Your task to perform on an android device: change your default location settings in chrome Image 0: 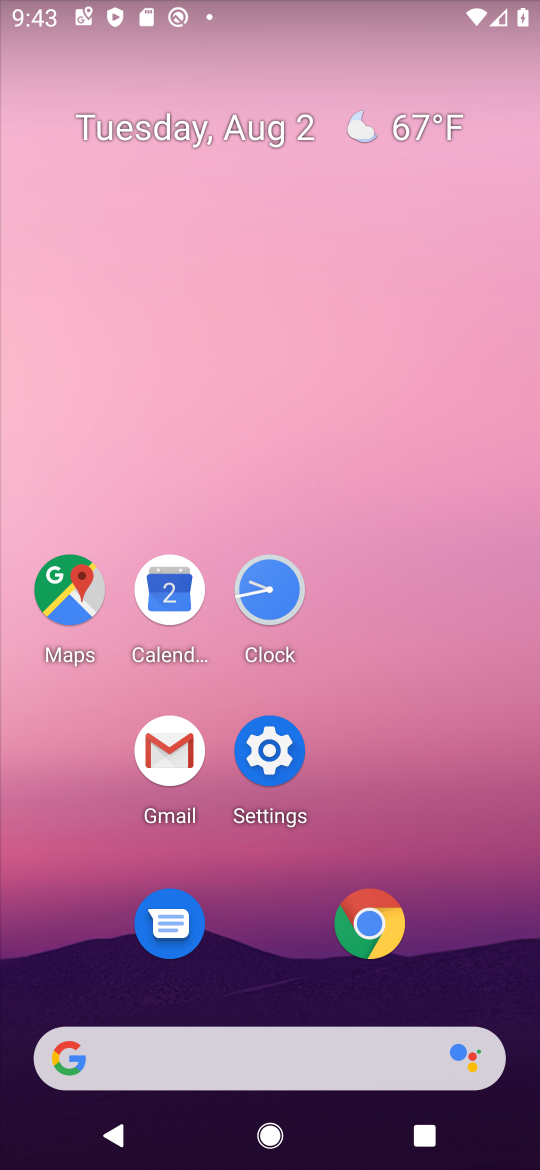
Step 0: press home button
Your task to perform on an android device: change your default location settings in chrome Image 1: 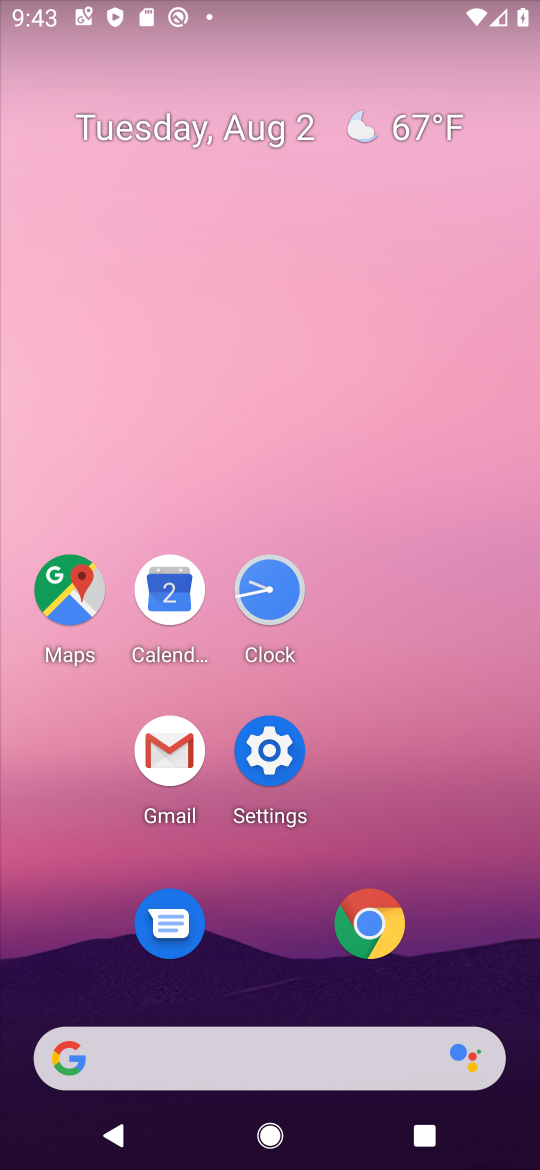
Step 1: click (359, 924)
Your task to perform on an android device: change your default location settings in chrome Image 2: 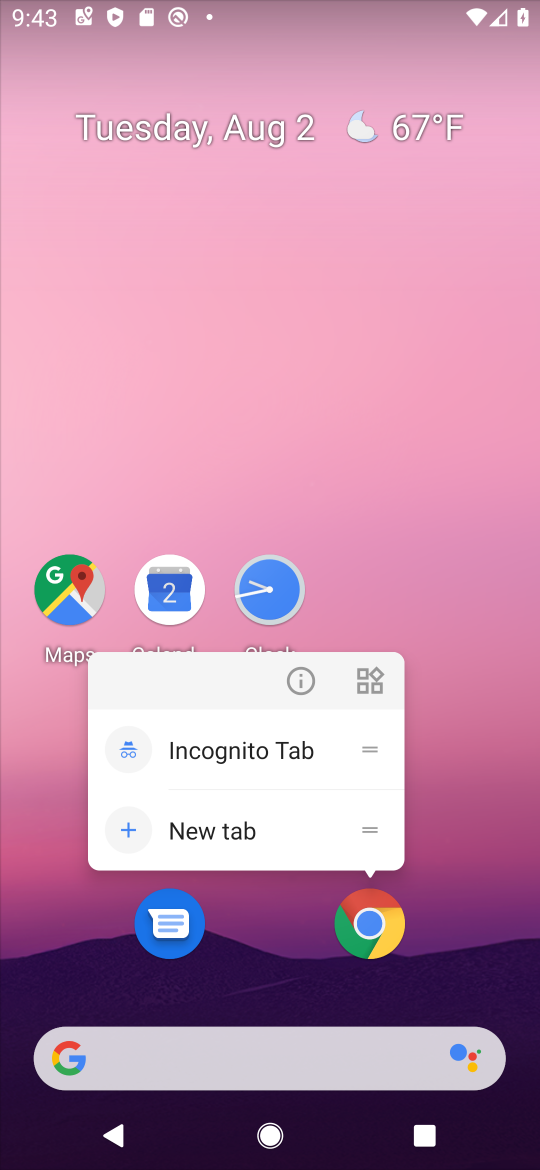
Step 2: click (378, 926)
Your task to perform on an android device: change your default location settings in chrome Image 3: 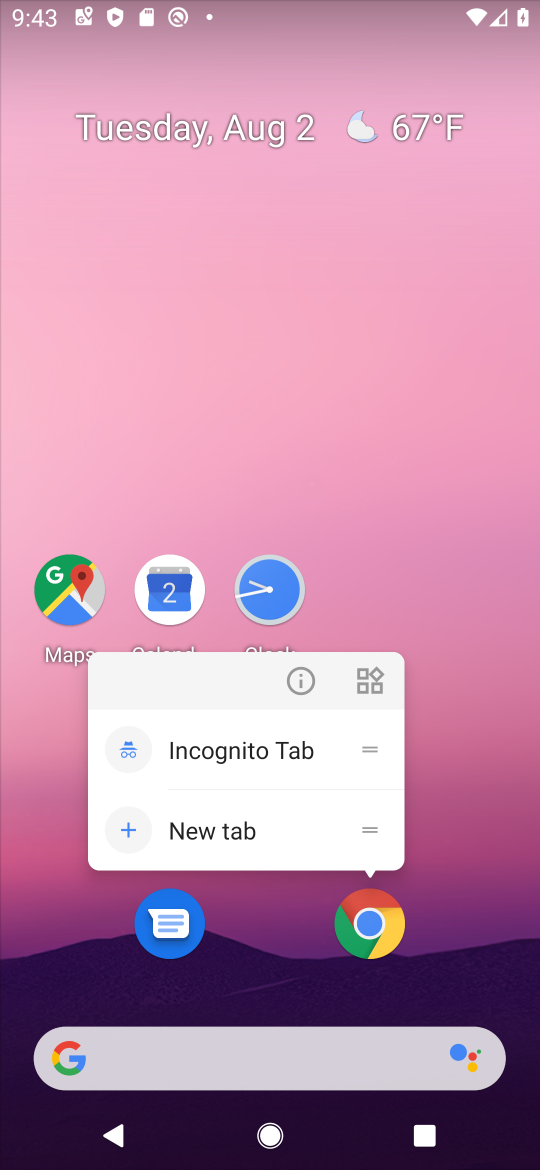
Step 3: click (378, 925)
Your task to perform on an android device: change your default location settings in chrome Image 4: 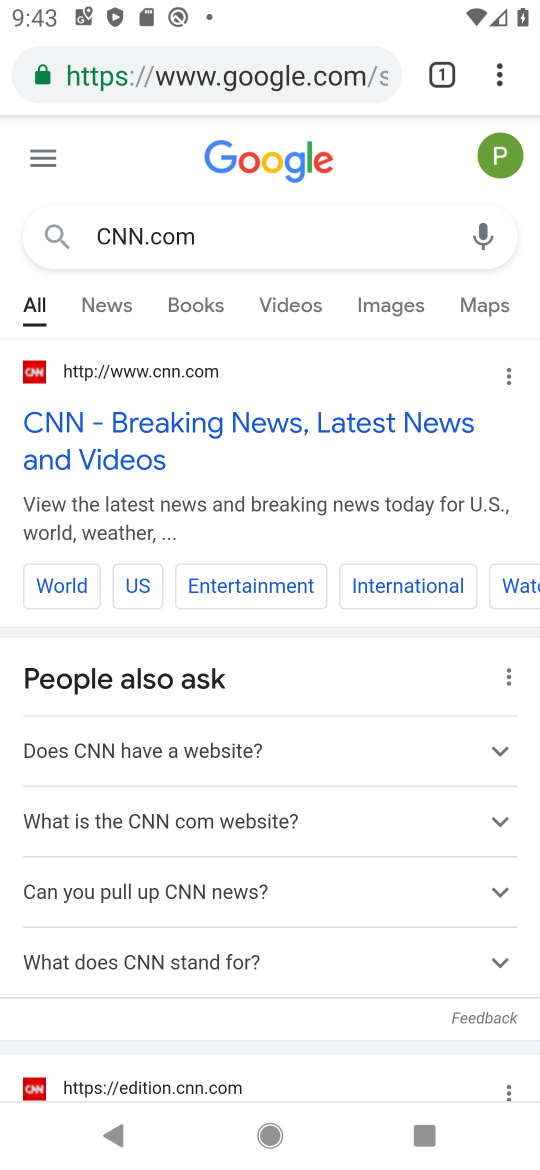
Step 4: click (497, 76)
Your task to perform on an android device: change your default location settings in chrome Image 5: 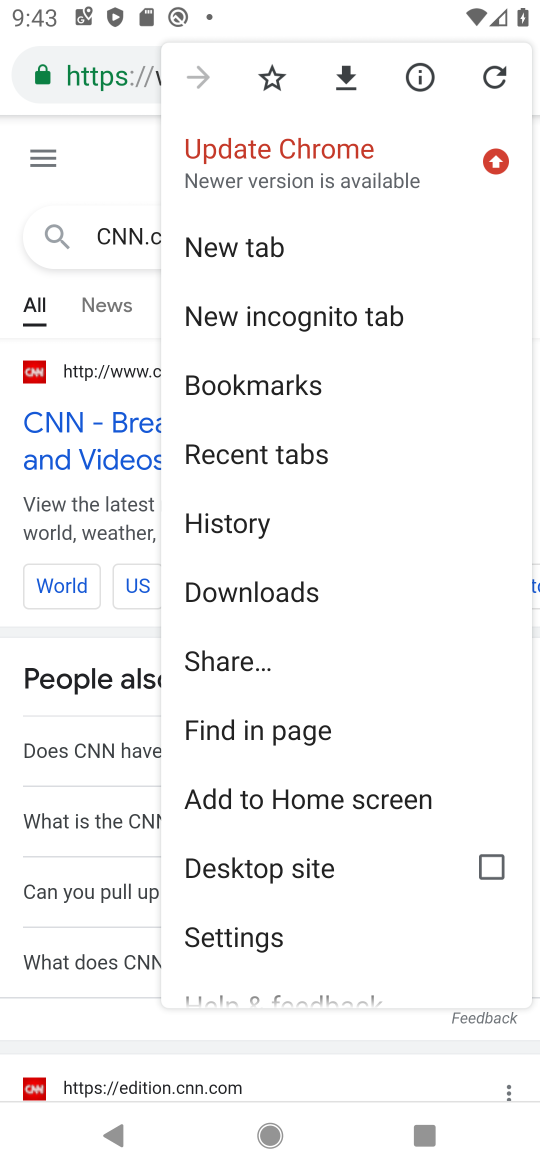
Step 5: click (251, 941)
Your task to perform on an android device: change your default location settings in chrome Image 6: 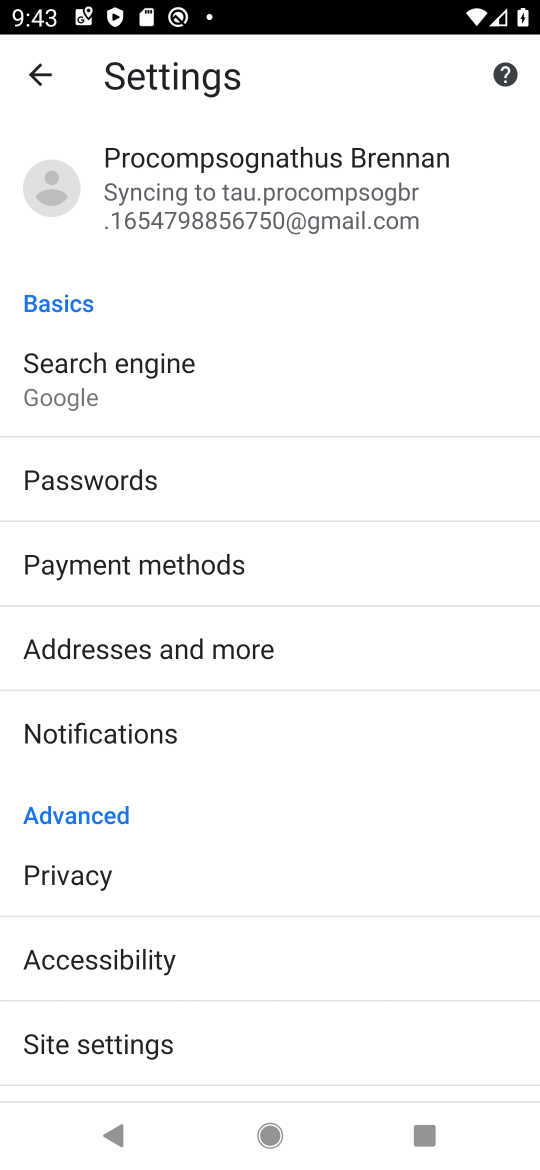
Step 6: click (106, 1045)
Your task to perform on an android device: change your default location settings in chrome Image 7: 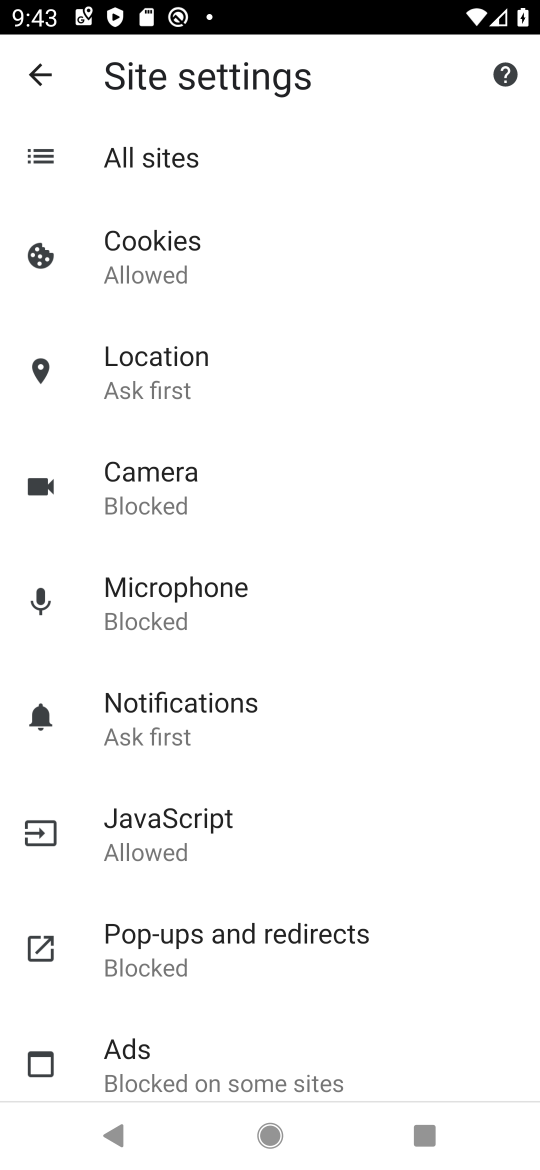
Step 7: click (174, 359)
Your task to perform on an android device: change your default location settings in chrome Image 8: 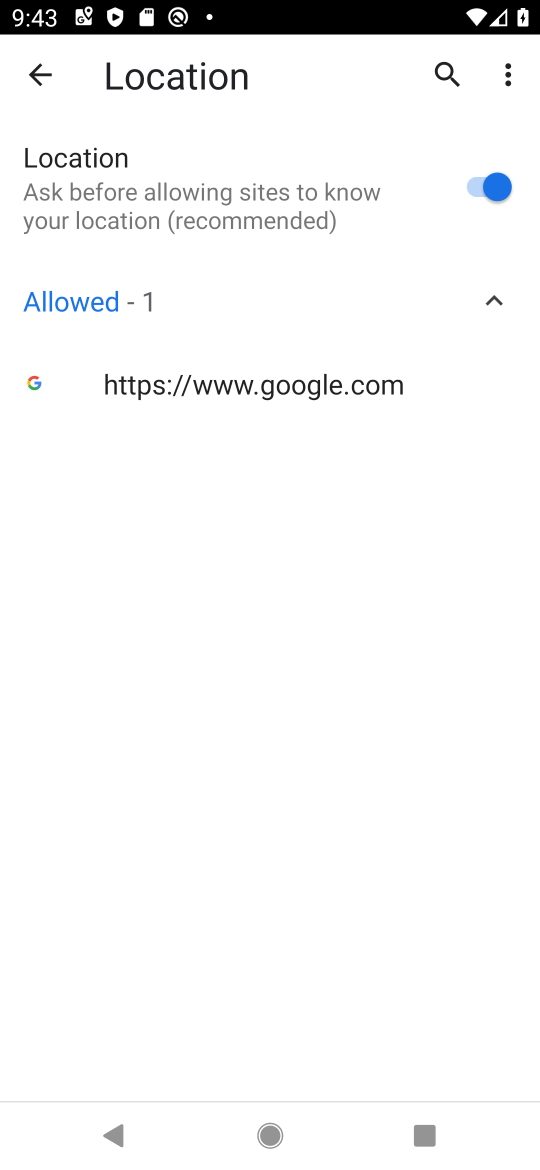
Step 8: click (486, 184)
Your task to perform on an android device: change your default location settings in chrome Image 9: 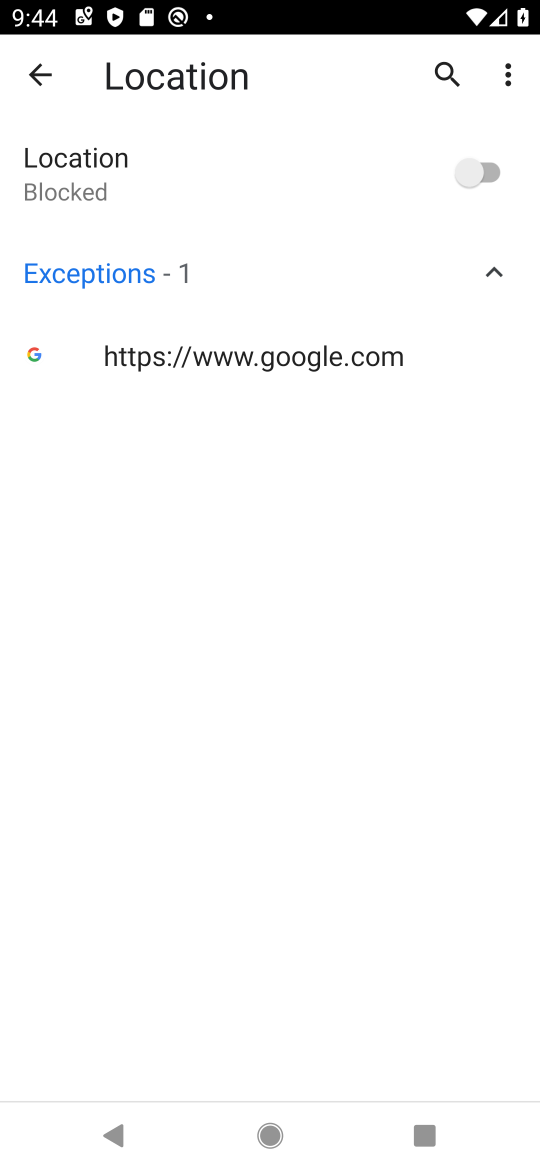
Step 9: task complete